Your task to perform on an android device: clear history in the chrome app Image 0: 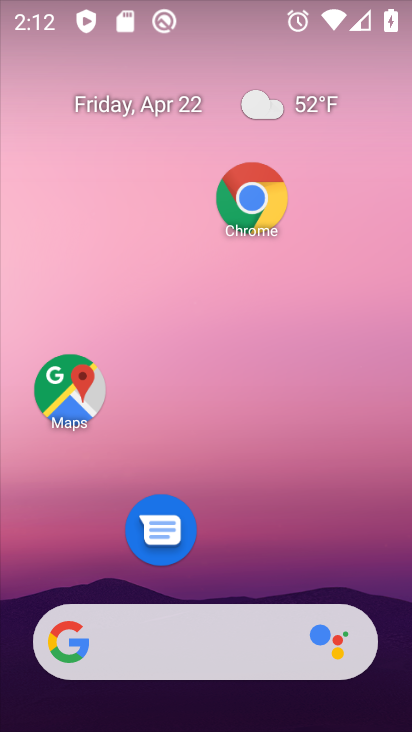
Step 0: click (254, 196)
Your task to perform on an android device: clear history in the chrome app Image 1: 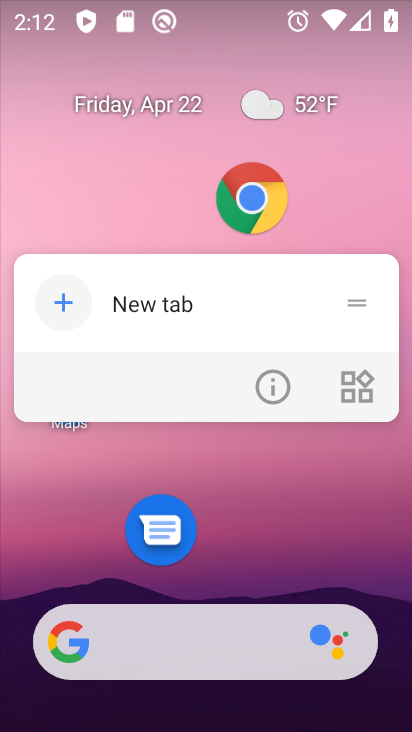
Step 1: click (258, 554)
Your task to perform on an android device: clear history in the chrome app Image 2: 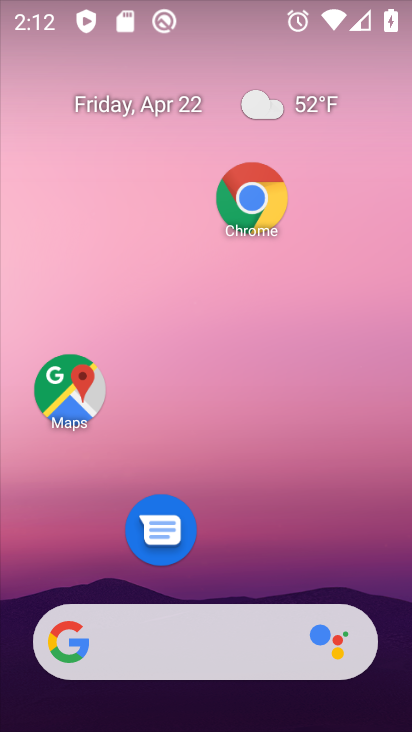
Step 2: drag from (301, 575) to (342, 123)
Your task to perform on an android device: clear history in the chrome app Image 3: 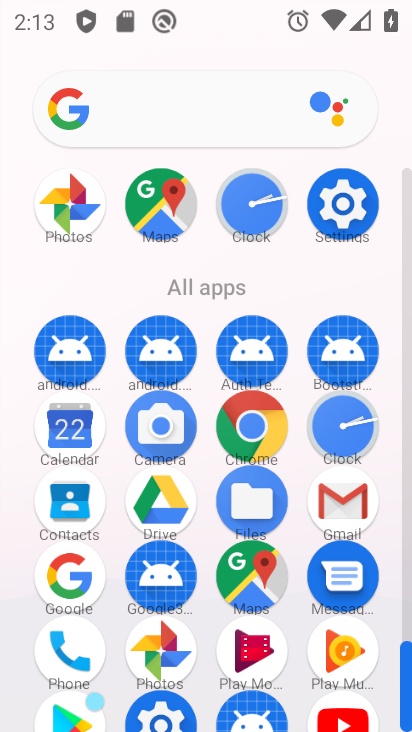
Step 3: click (250, 416)
Your task to perform on an android device: clear history in the chrome app Image 4: 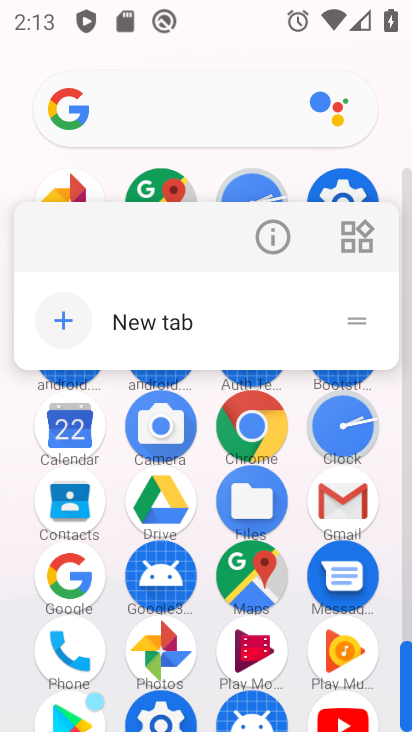
Step 4: click (250, 416)
Your task to perform on an android device: clear history in the chrome app Image 5: 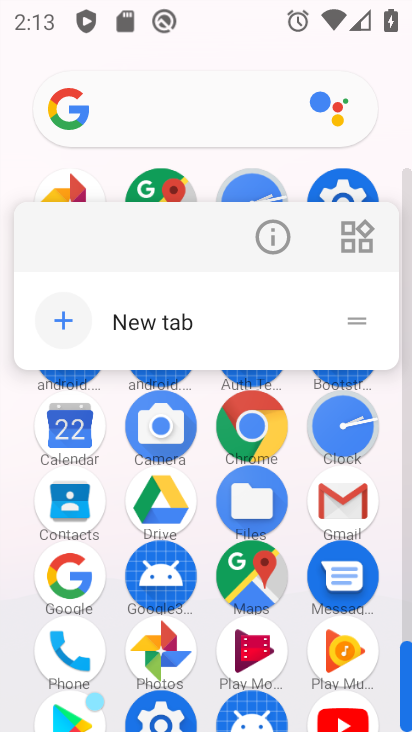
Step 5: click (13, 533)
Your task to perform on an android device: clear history in the chrome app Image 6: 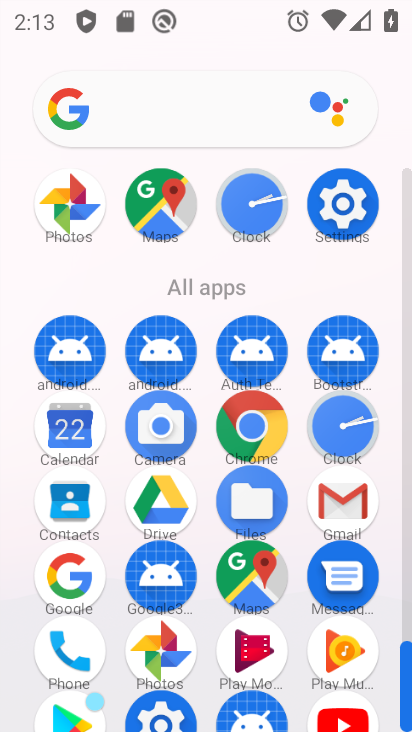
Step 6: click (244, 420)
Your task to perform on an android device: clear history in the chrome app Image 7: 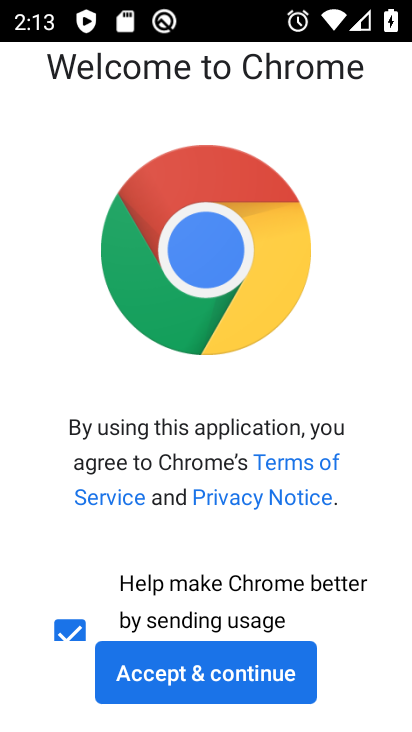
Step 7: click (192, 670)
Your task to perform on an android device: clear history in the chrome app Image 8: 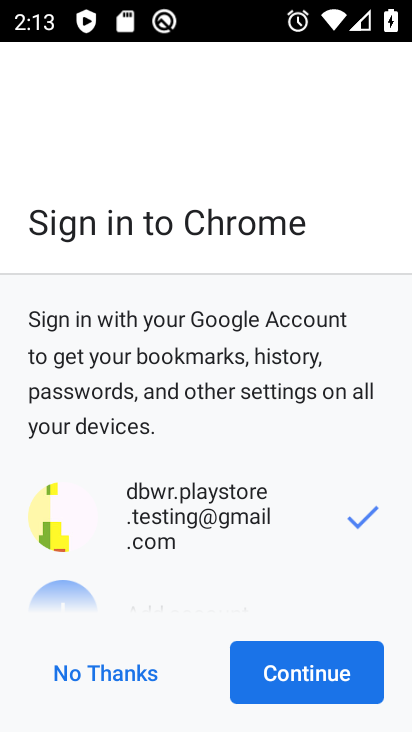
Step 8: click (293, 658)
Your task to perform on an android device: clear history in the chrome app Image 9: 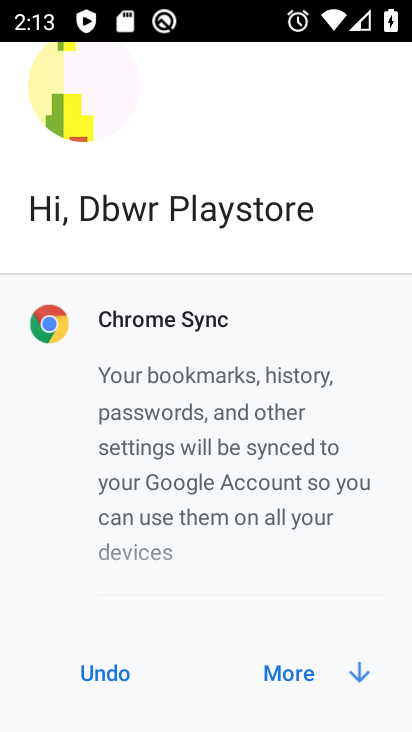
Step 9: click (307, 673)
Your task to perform on an android device: clear history in the chrome app Image 10: 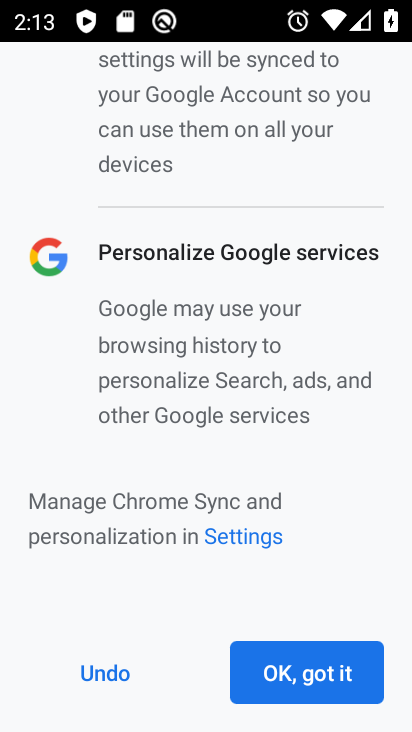
Step 10: click (307, 673)
Your task to perform on an android device: clear history in the chrome app Image 11: 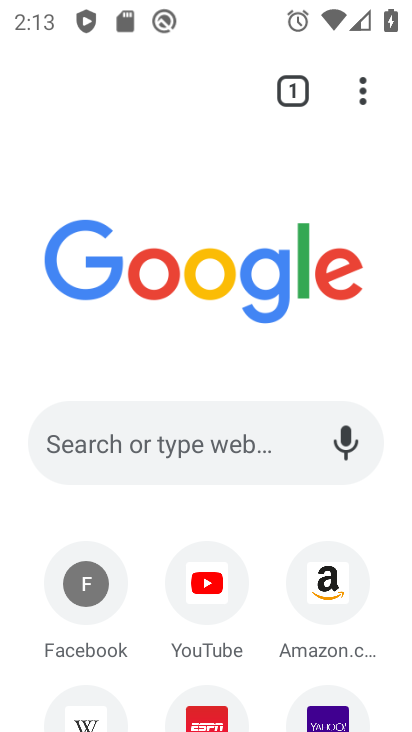
Step 11: click (371, 92)
Your task to perform on an android device: clear history in the chrome app Image 12: 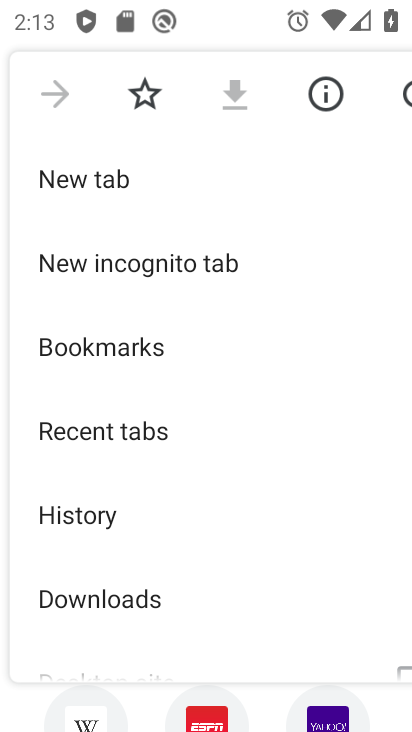
Step 12: click (129, 514)
Your task to perform on an android device: clear history in the chrome app Image 13: 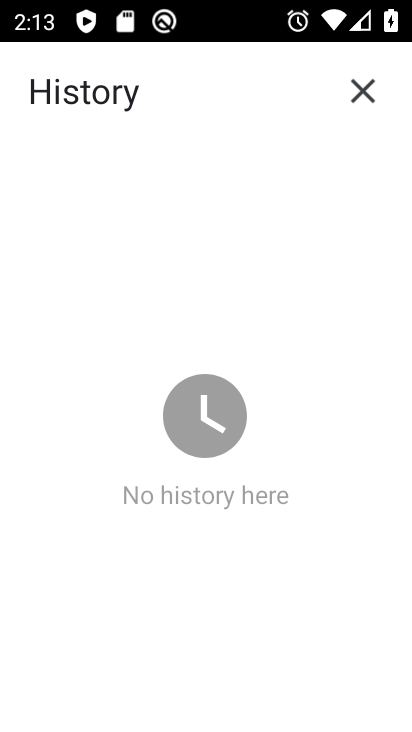
Step 13: task complete